Your task to perform on an android device: turn off improve location accuracy Image 0: 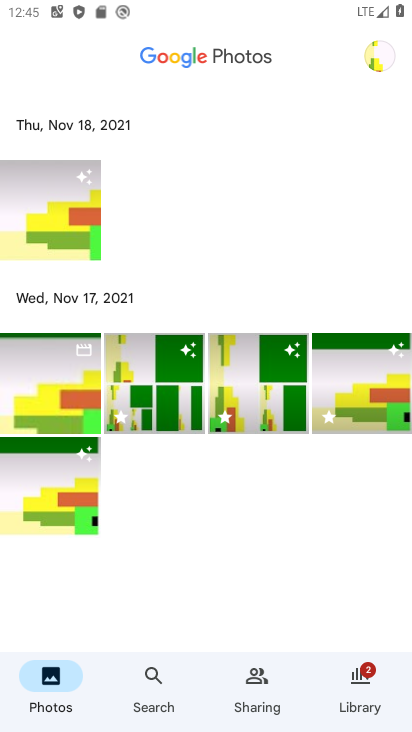
Step 0: press home button
Your task to perform on an android device: turn off improve location accuracy Image 1: 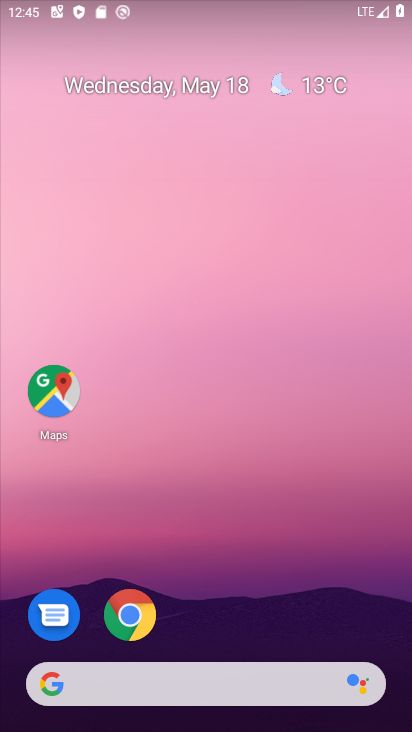
Step 1: drag from (162, 688) to (287, 208)
Your task to perform on an android device: turn off improve location accuracy Image 2: 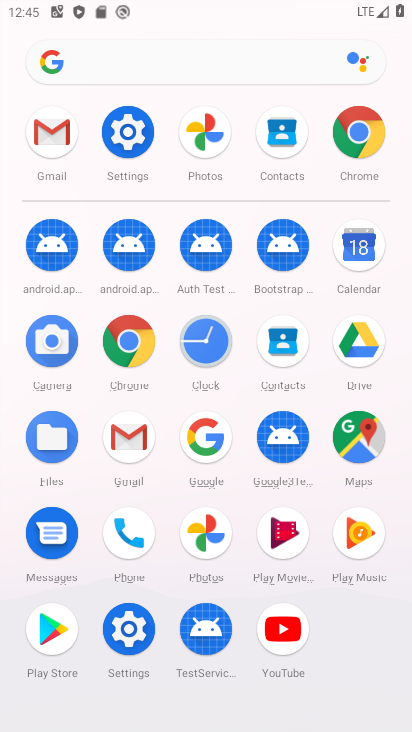
Step 2: click (134, 131)
Your task to perform on an android device: turn off improve location accuracy Image 3: 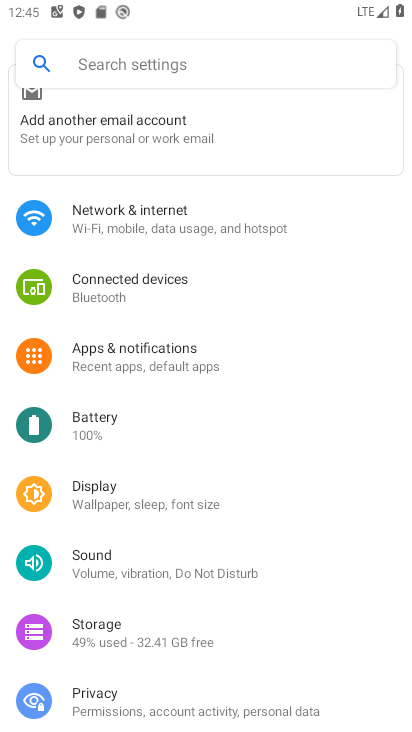
Step 3: drag from (283, 499) to (372, 245)
Your task to perform on an android device: turn off improve location accuracy Image 4: 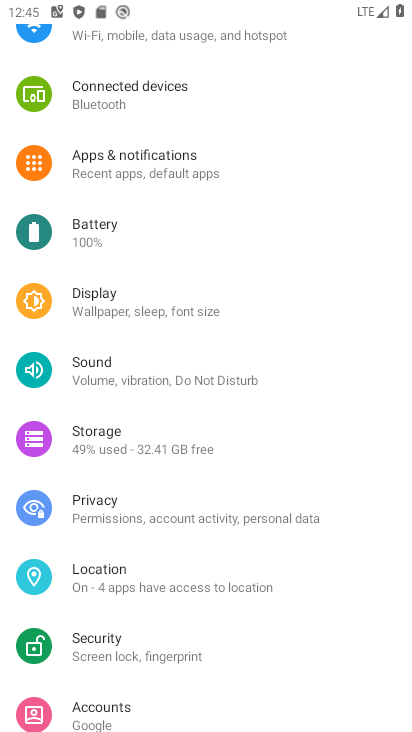
Step 4: click (155, 579)
Your task to perform on an android device: turn off improve location accuracy Image 5: 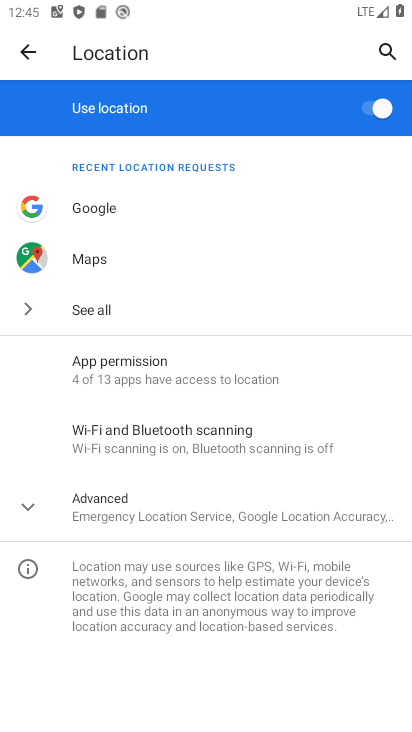
Step 5: click (145, 514)
Your task to perform on an android device: turn off improve location accuracy Image 6: 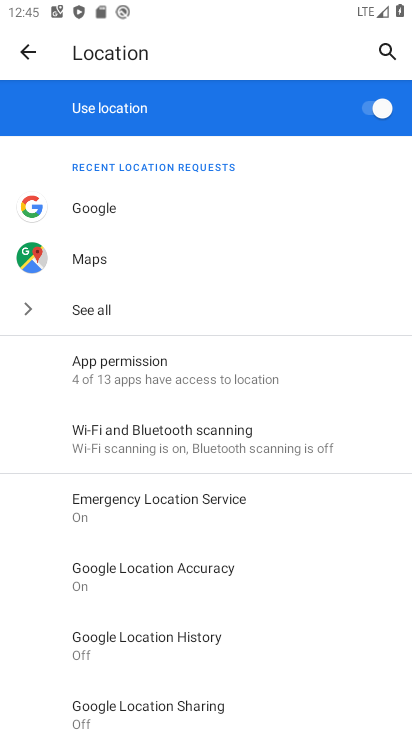
Step 6: click (177, 578)
Your task to perform on an android device: turn off improve location accuracy Image 7: 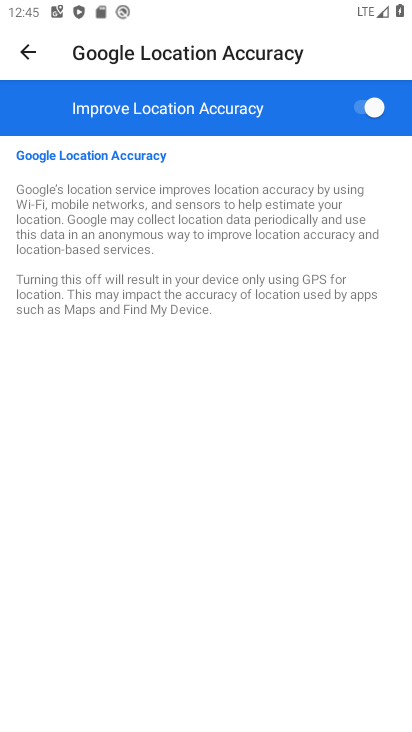
Step 7: click (358, 110)
Your task to perform on an android device: turn off improve location accuracy Image 8: 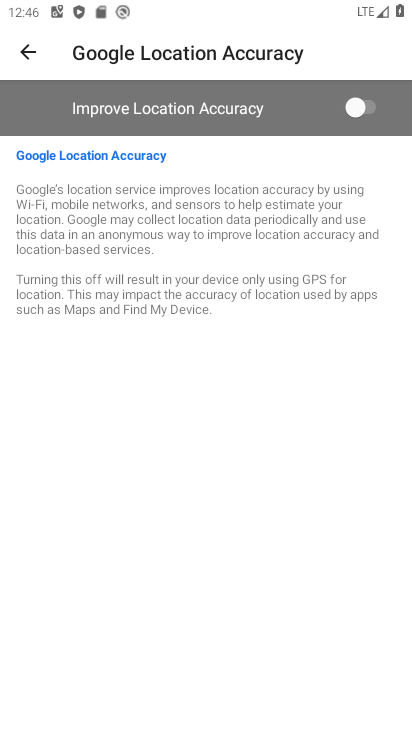
Step 8: task complete